Your task to perform on an android device: delete a single message in the gmail app Image 0: 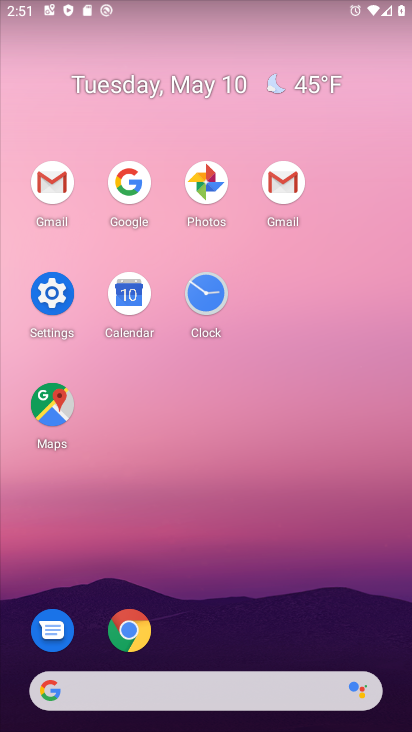
Step 0: click (275, 181)
Your task to perform on an android device: delete a single message in the gmail app Image 1: 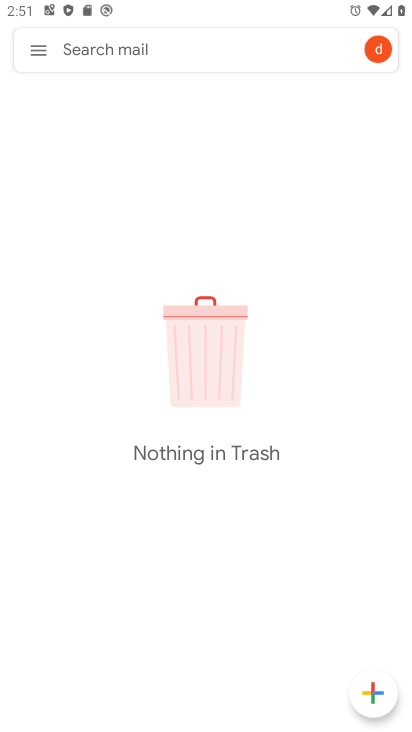
Step 1: click (39, 47)
Your task to perform on an android device: delete a single message in the gmail app Image 2: 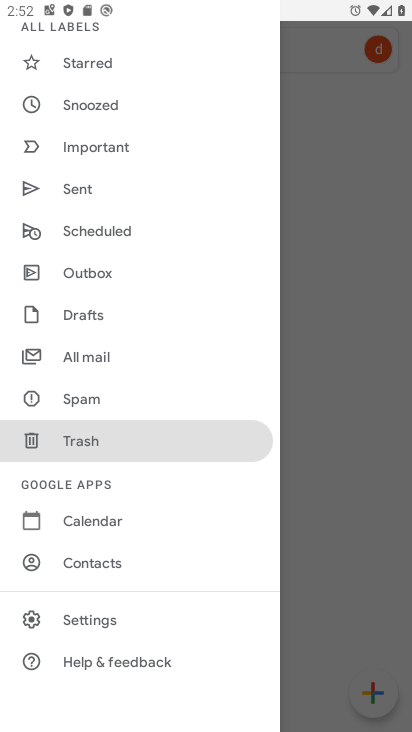
Step 2: click (92, 357)
Your task to perform on an android device: delete a single message in the gmail app Image 3: 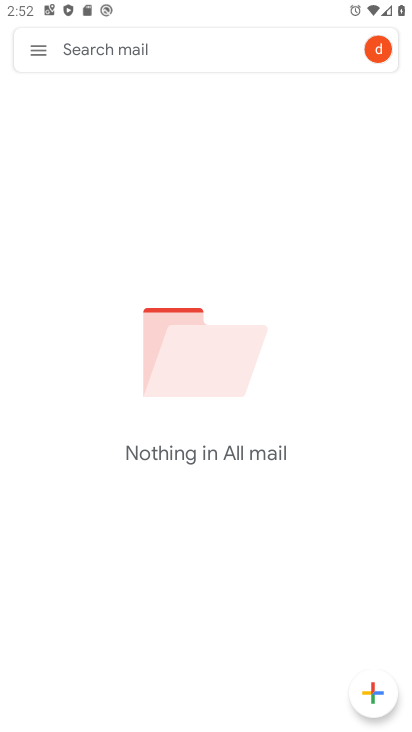
Step 3: task complete